Your task to perform on an android device: What's the weather going to be this weekend? Image 0: 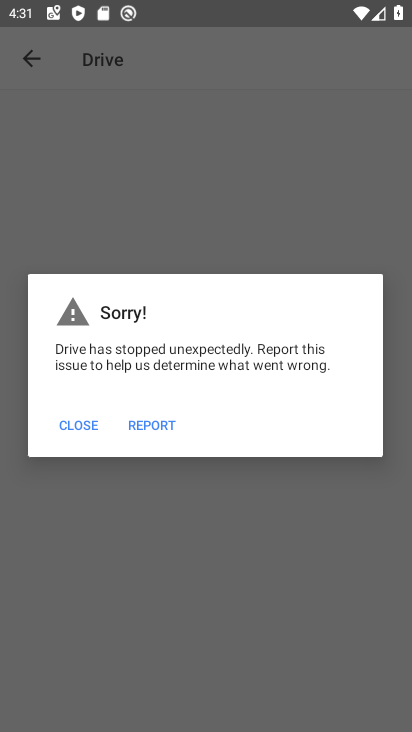
Step 0: press home button
Your task to perform on an android device: What's the weather going to be this weekend? Image 1: 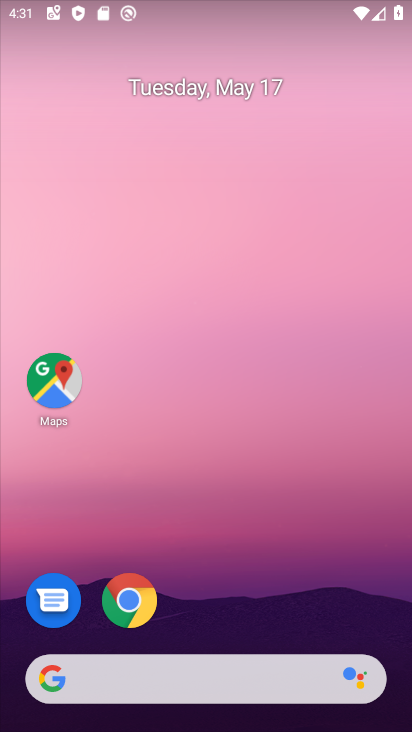
Step 1: click (205, 674)
Your task to perform on an android device: What's the weather going to be this weekend? Image 2: 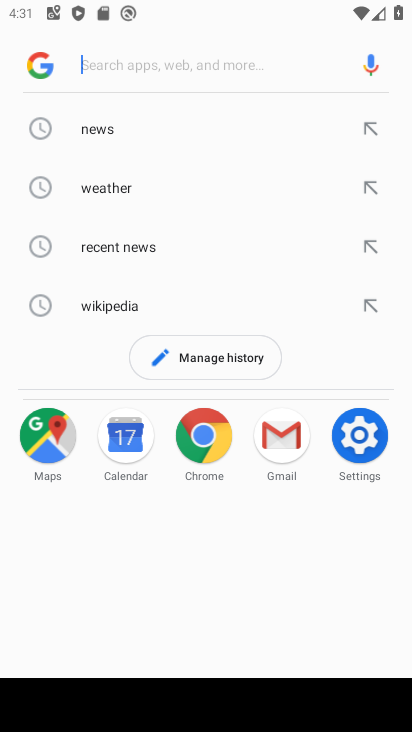
Step 2: click (117, 187)
Your task to perform on an android device: What's the weather going to be this weekend? Image 3: 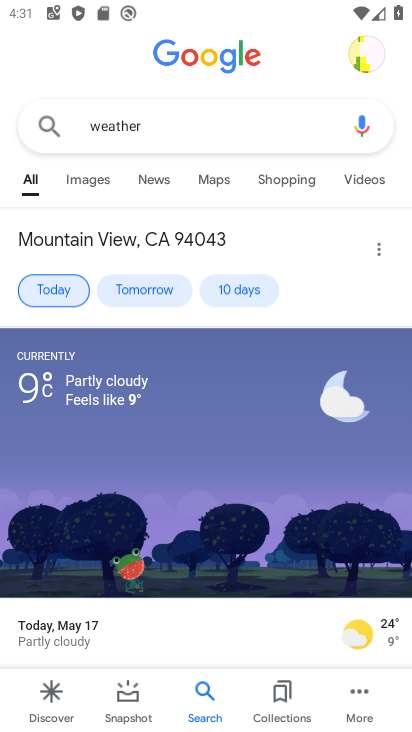
Step 3: click (228, 287)
Your task to perform on an android device: What's the weather going to be this weekend? Image 4: 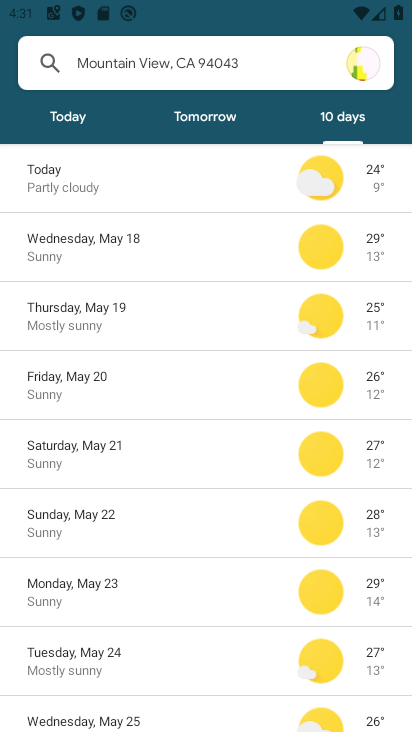
Step 4: task complete